Your task to perform on an android device: toggle pop-ups in chrome Image 0: 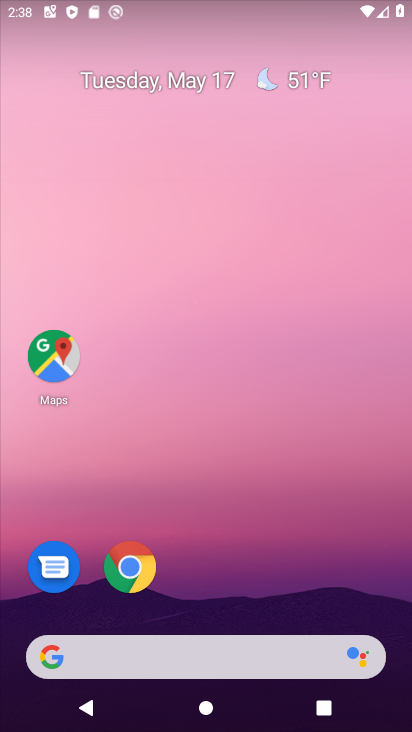
Step 0: click (115, 559)
Your task to perform on an android device: toggle pop-ups in chrome Image 1: 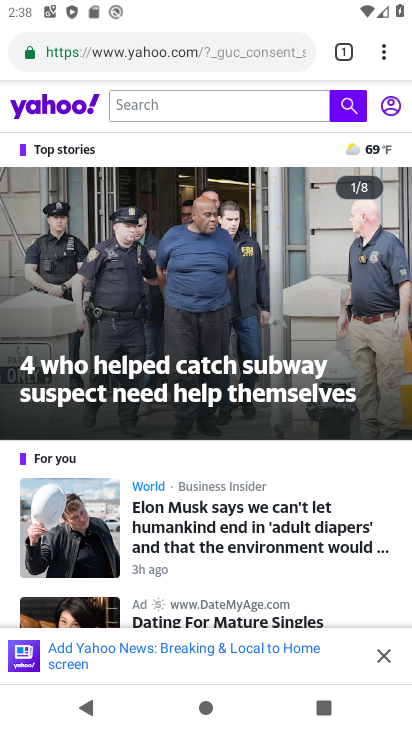
Step 1: drag from (384, 49) to (234, 622)
Your task to perform on an android device: toggle pop-ups in chrome Image 2: 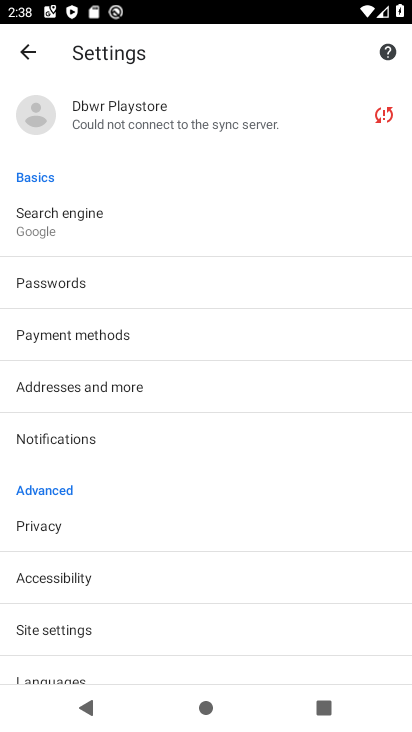
Step 2: drag from (139, 517) to (110, 62)
Your task to perform on an android device: toggle pop-ups in chrome Image 3: 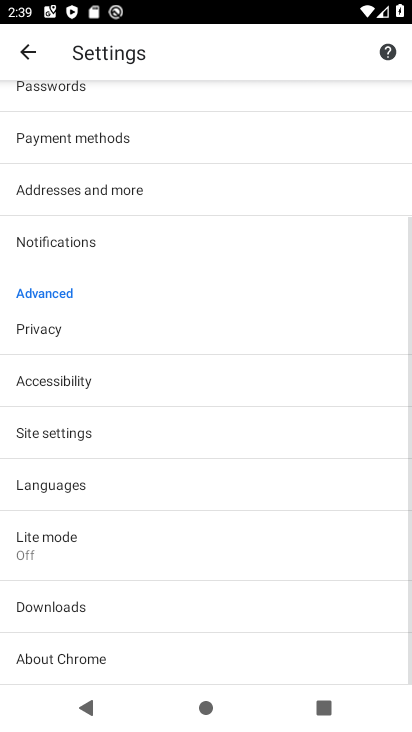
Step 3: click (72, 437)
Your task to perform on an android device: toggle pop-ups in chrome Image 4: 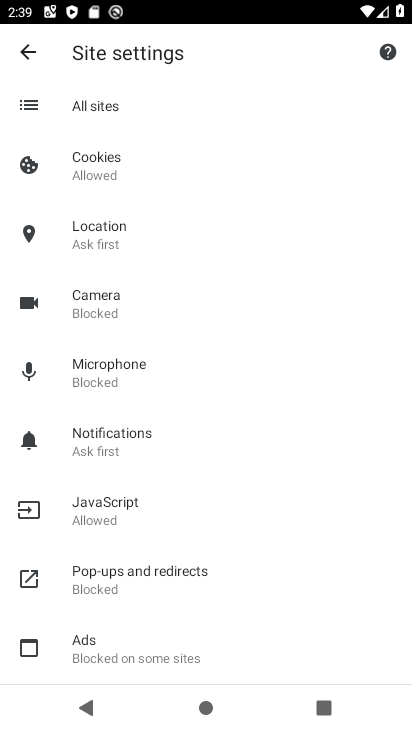
Step 4: click (167, 580)
Your task to perform on an android device: toggle pop-ups in chrome Image 5: 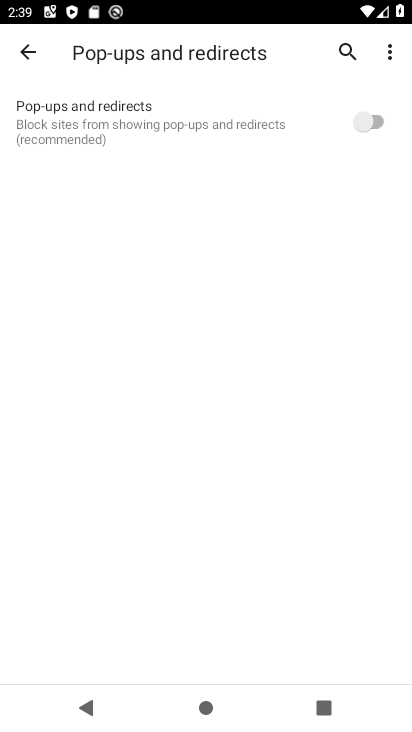
Step 5: click (370, 118)
Your task to perform on an android device: toggle pop-ups in chrome Image 6: 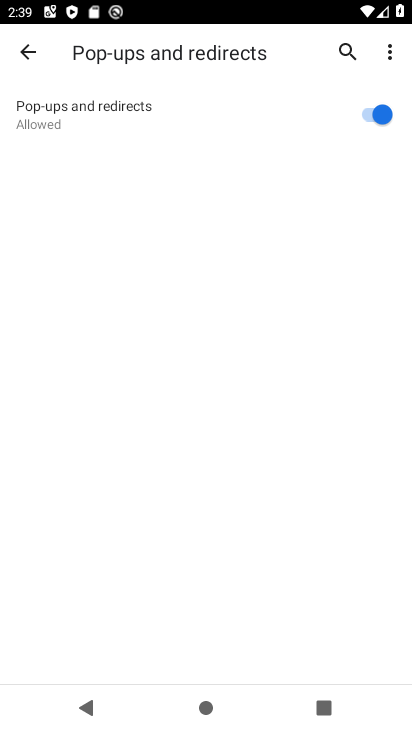
Step 6: task complete